Your task to perform on an android device: Turn on the flashlight Image 0: 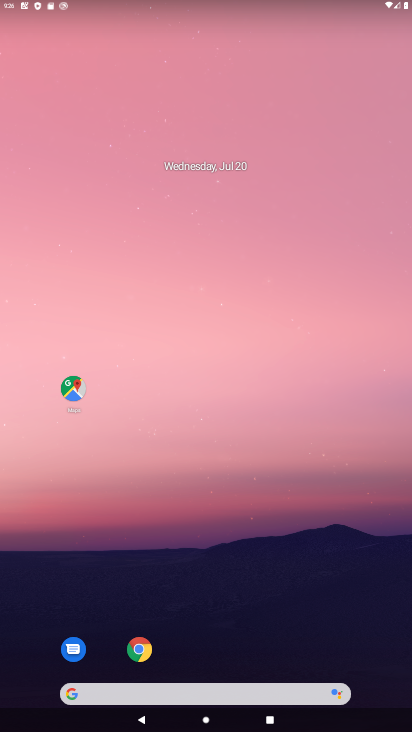
Step 0: drag from (207, 656) to (280, 117)
Your task to perform on an android device: Turn on the flashlight Image 1: 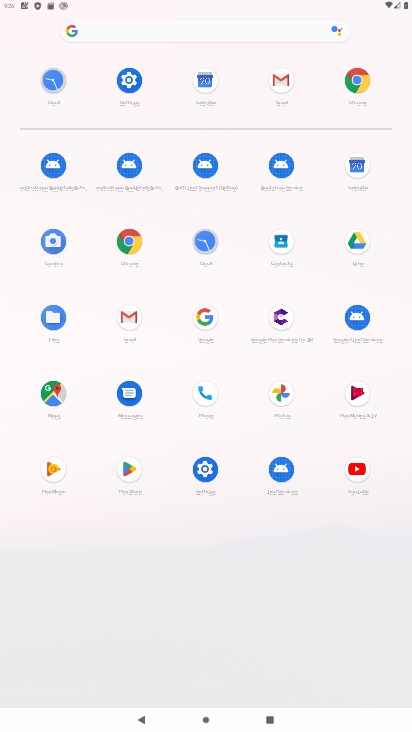
Step 1: click (119, 88)
Your task to perform on an android device: Turn on the flashlight Image 2: 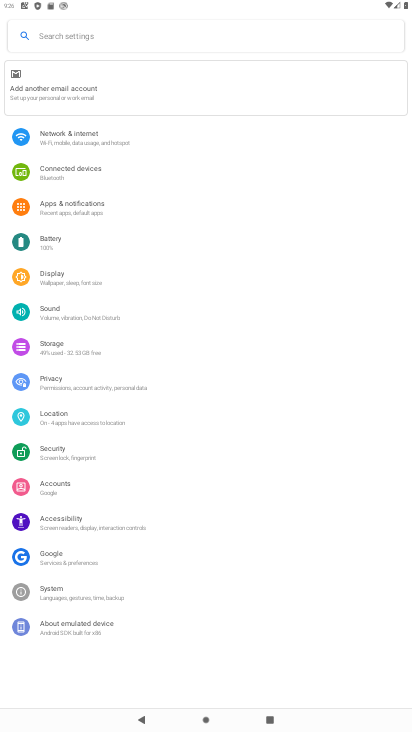
Step 2: task complete